Your task to perform on an android device: Open the stopwatch Image 0: 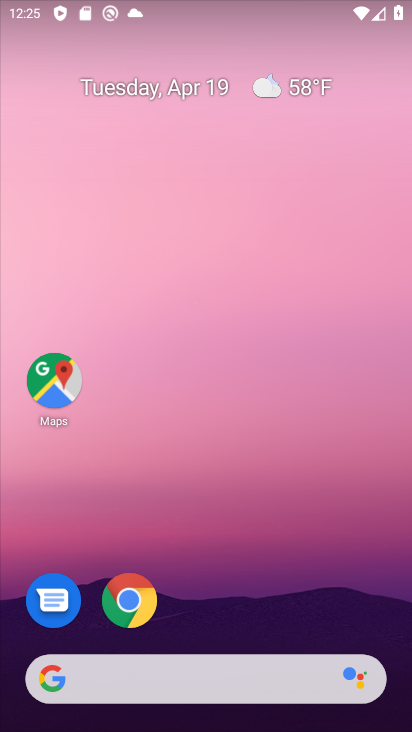
Step 0: drag from (256, 705) to (221, 363)
Your task to perform on an android device: Open the stopwatch Image 1: 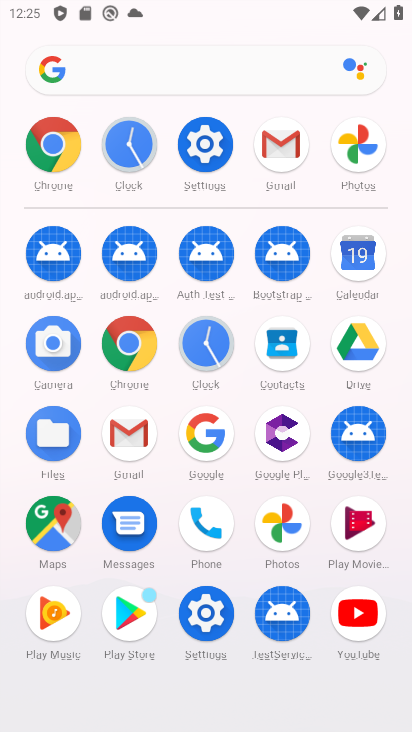
Step 1: click (135, 154)
Your task to perform on an android device: Open the stopwatch Image 2: 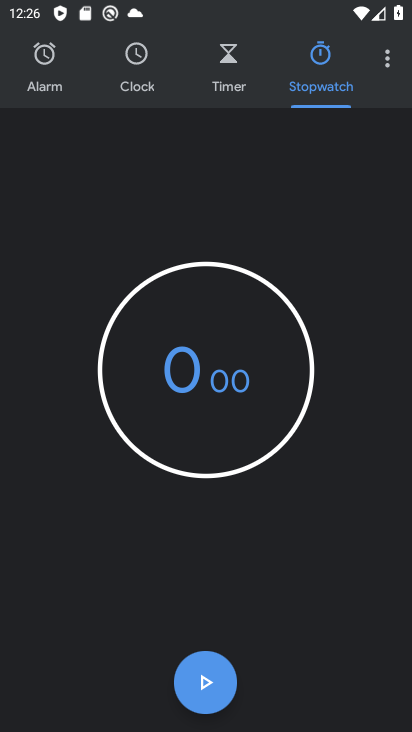
Step 2: click (197, 688)
Your task to perform on an android device: Open the stopwatch Image 3: 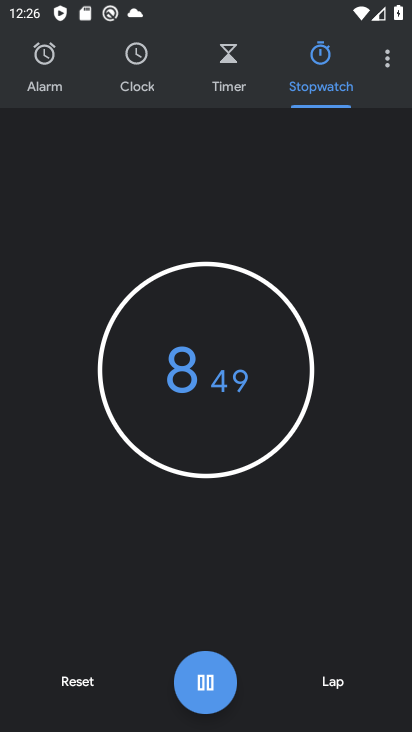
Step 3: click (186, 693)
Your task to perform on an android device: Open the stopwatch Image 4: 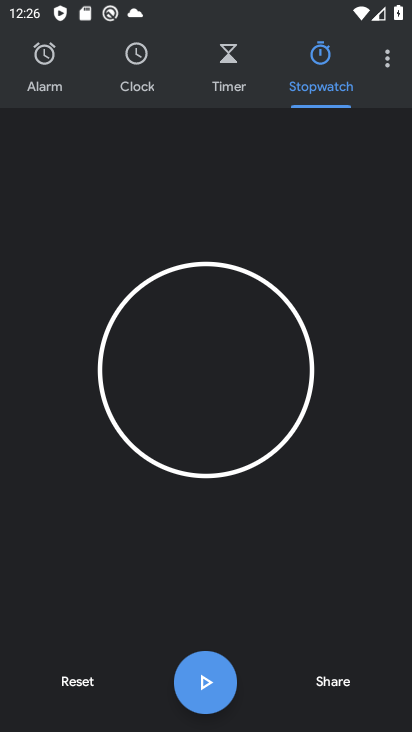
Step 4: task complete